Your task to perform on an android device: open app "Facebook" (install if not already installed), go to login, and select forgot password Image 0: 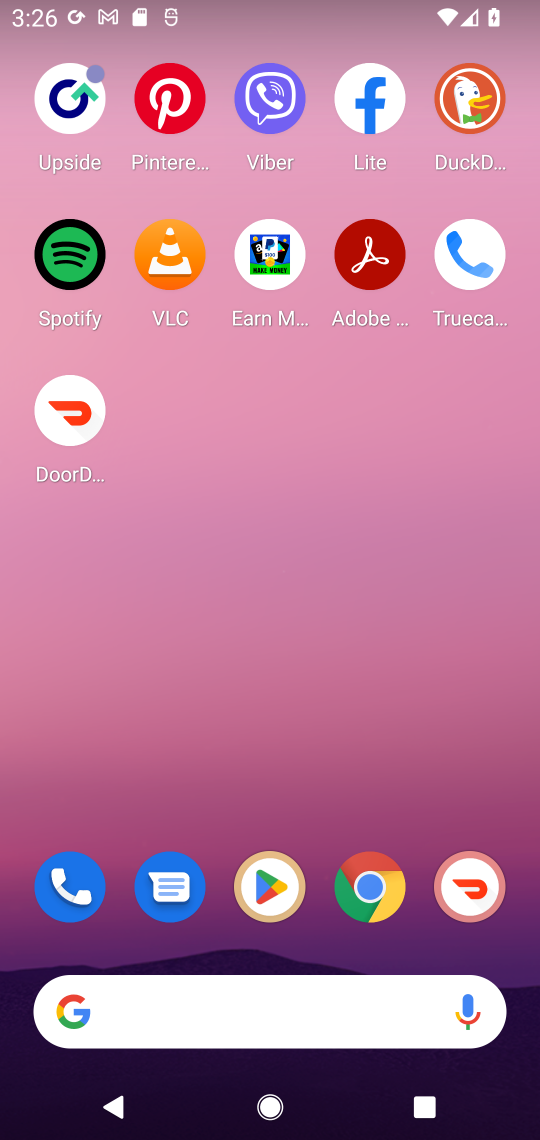
Step 0: click (267, 877)
Your task to perform on an android device: open app "Facebook" (install if not already installed), go to login, and select forgot password Image 1: 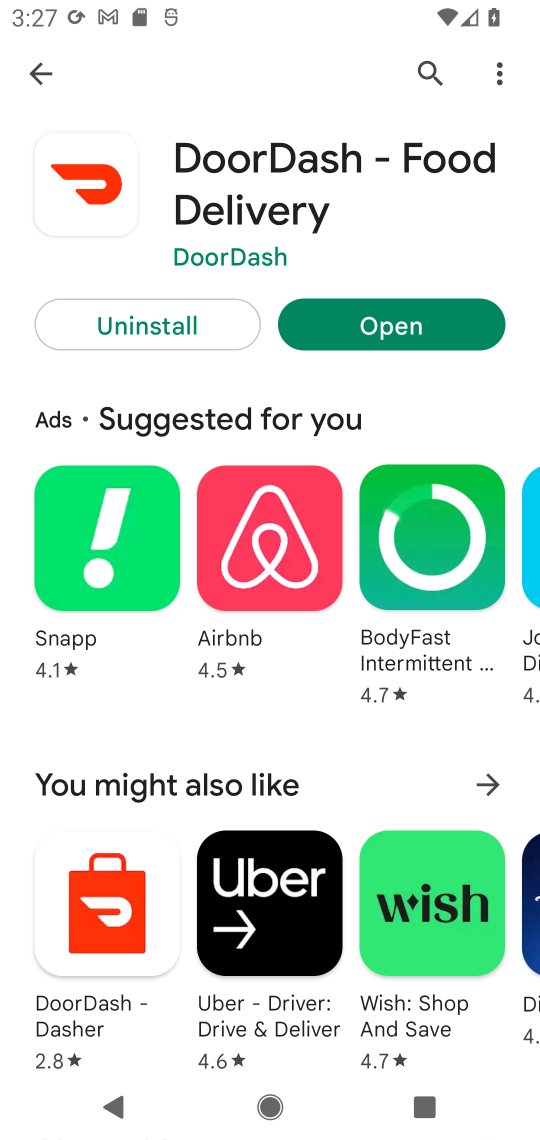
Step 1: click (417, 73)
Your task to perform on an android device: open app "Facebook" (install if not already installed), go to login, and select forgot password Image 2: 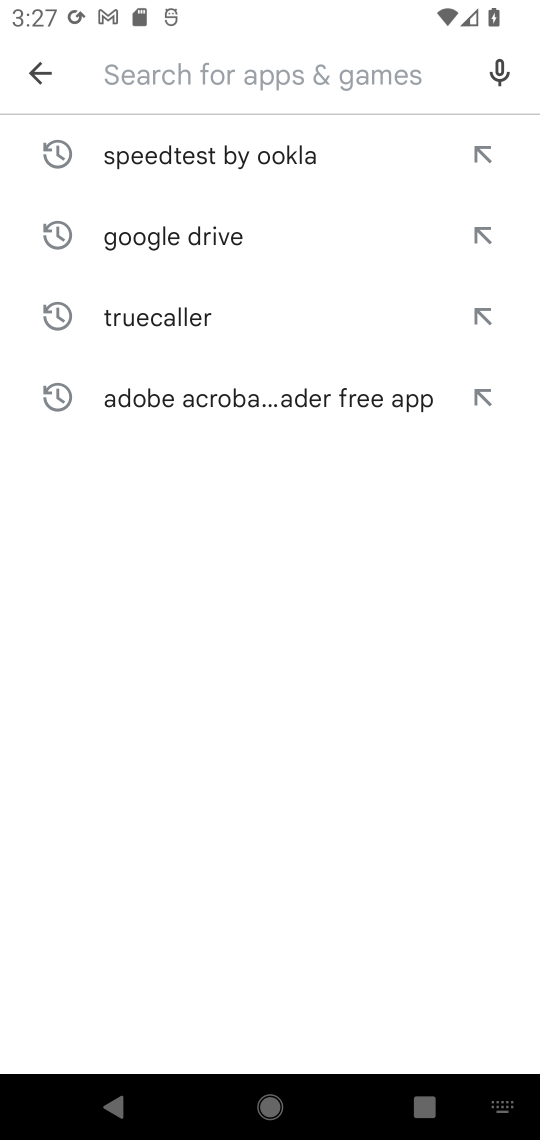
Step 2: type "Facebook"
Your task to perform on an android device: open app "Facebook" (install if not already installed), go to login, and select forgot password Image 3: 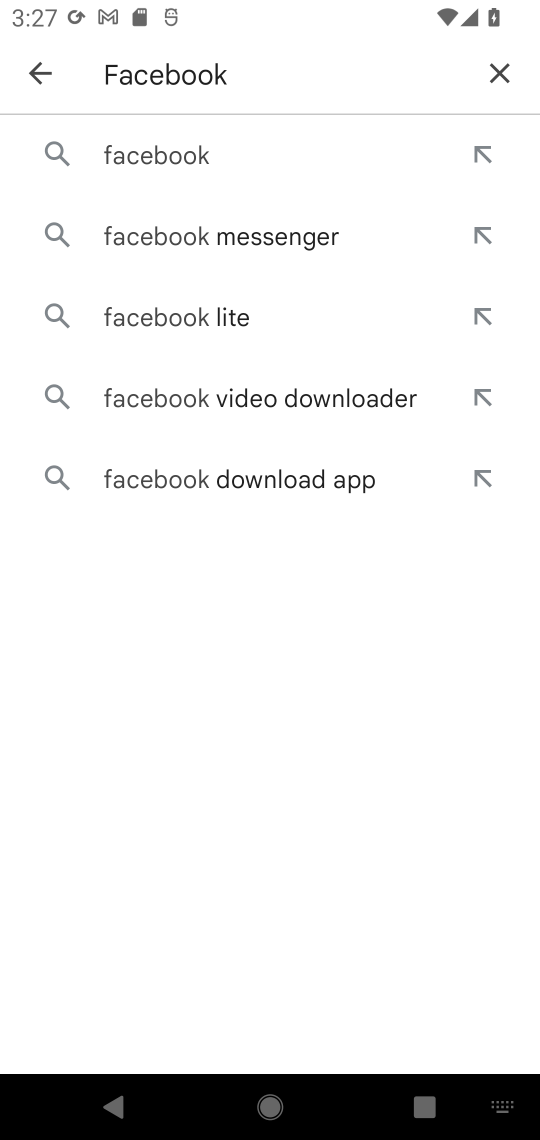
Step 3: click (191, 150)
Your task to perform on an android device: open app "Facebook" (install if not already installed), go to login, and select forgot password Image 4: 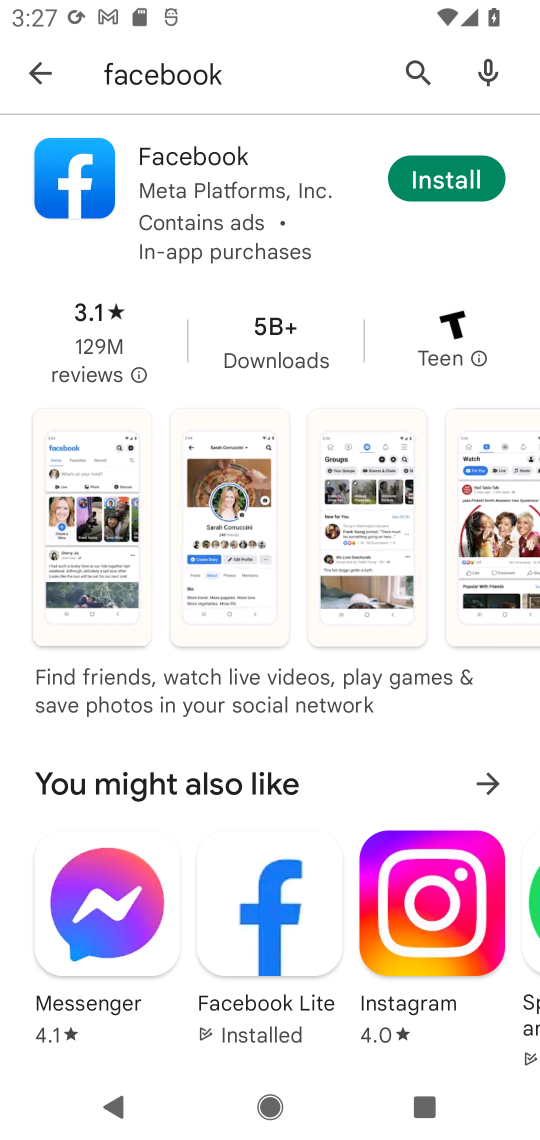
Step 4: click (451, 193)
Your task to perform on an android device: open app "Facebook" (install if not already installed), go to login, and select forgot password Image 5: 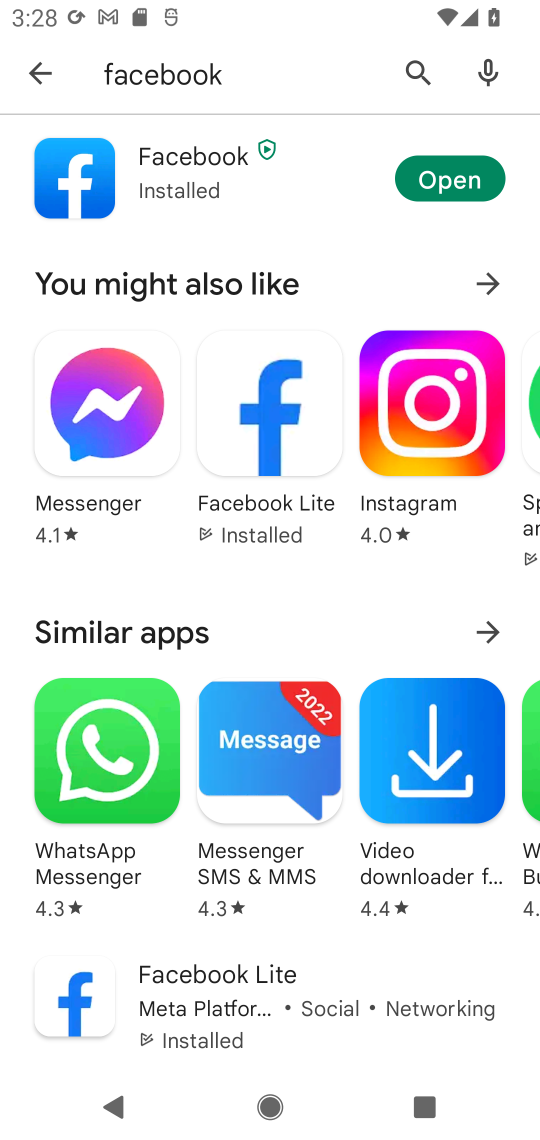
Step 5: click (440, 180)
Your task to perform on an android device: open app "Facebook" (install if not already installed), go to login, and select forgot password Image 6: 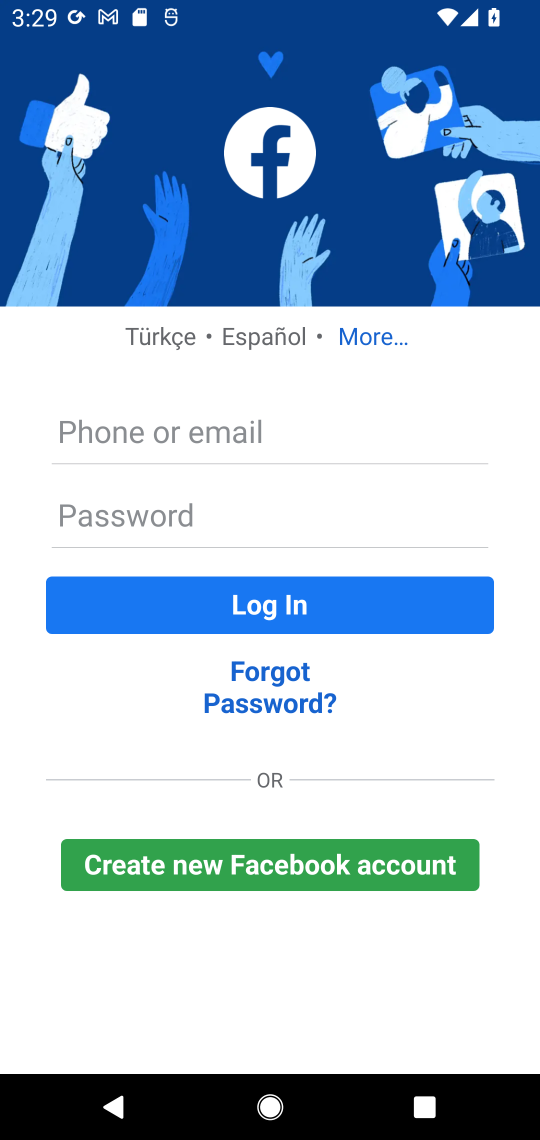
Step 6: click (265, 700)
Your task to perform on an android device: open app "Facebook" (install if not already installed), go to login, and select forgot password Image 7: 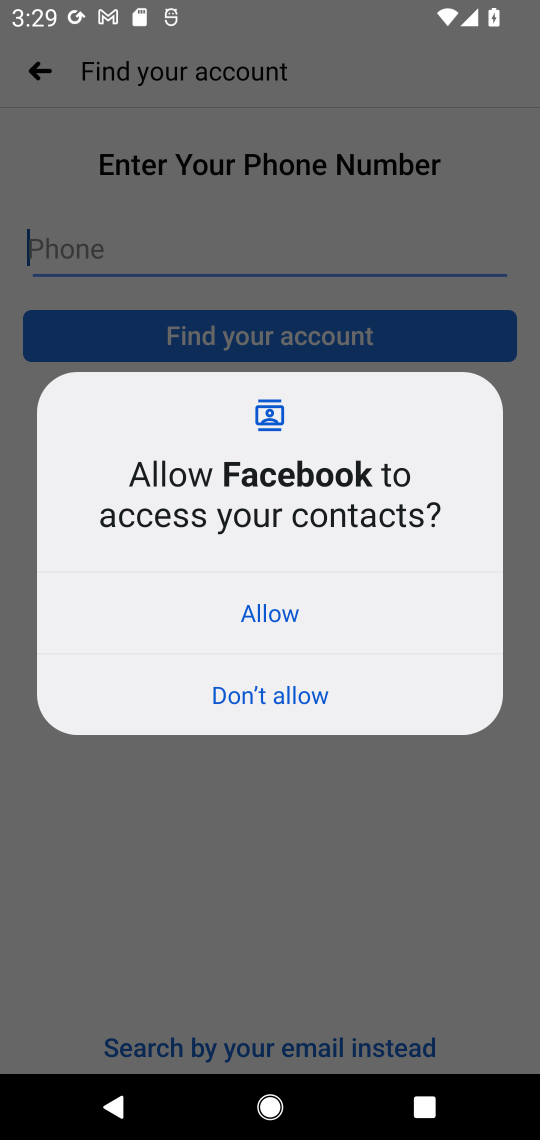
Step 7: click (285, 623)
Your task to perform on an android device: open app "Facebook" (install if not already installed), go to login, and select forgot password Image 8: 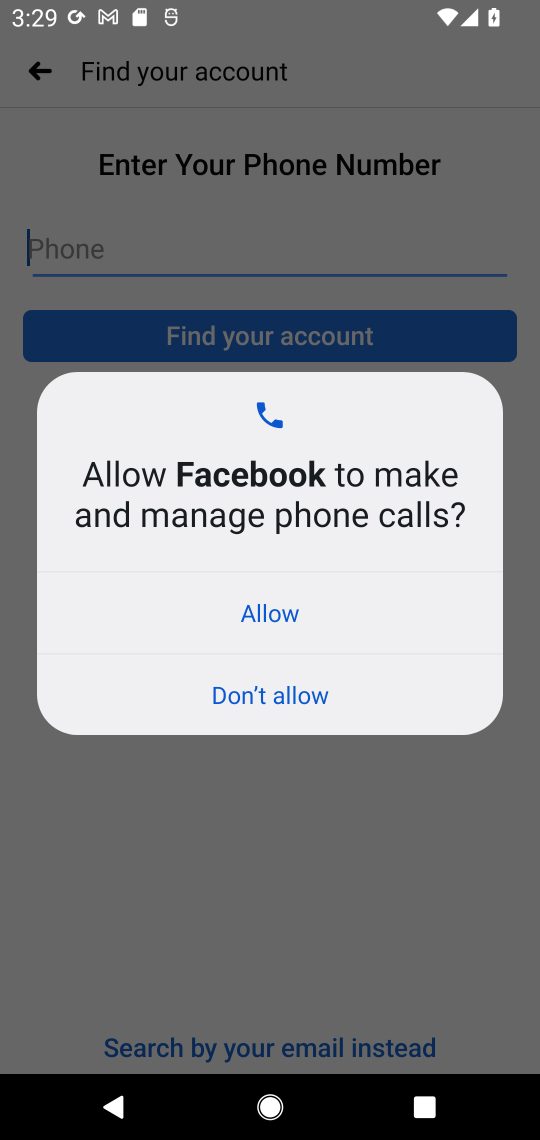
Step 8: click (269, 601)
Your task to perform on an android device: open app "Facebook" (install if not already installed), go to login, and select forgot password Image 9: 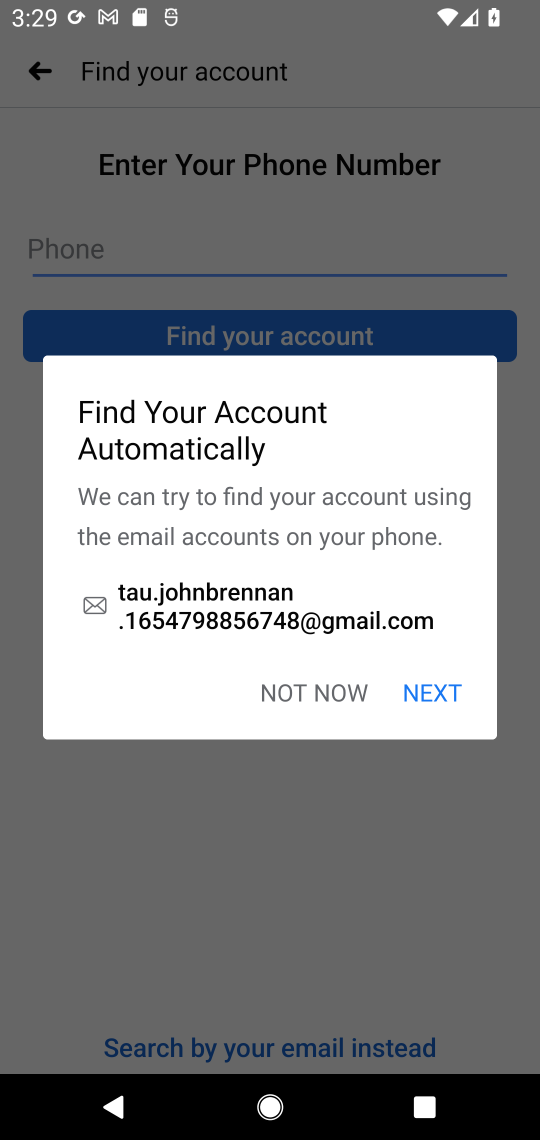
Step 9: task complete